Your task to perform on an android device: turn off notifications in google photos Image 0: 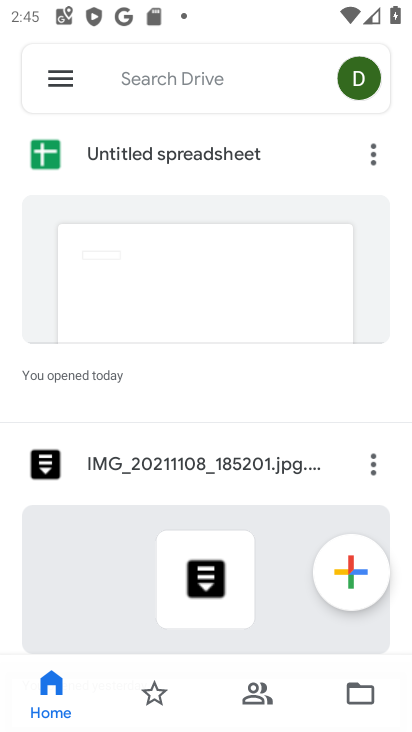
Step 0: press home button
Your task to perform on an android device: turn off notifications in google photos Image 1: 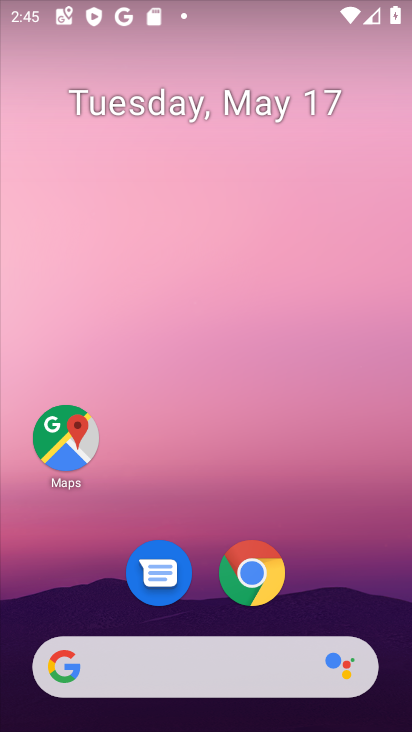
Step 1: drag from (362, 576) to (315, 142)
Your task to perform on an android device: turn off notifications in google photos Image 2: 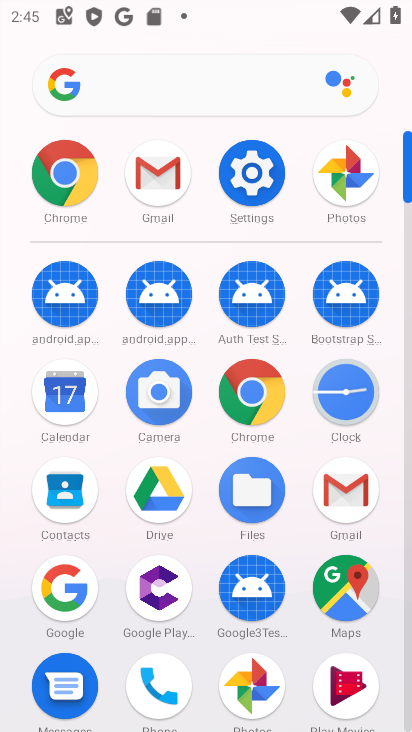
Step 2: click (260, 684)
Your task to perform on an android device: turn off notifications in google photos Image 3: 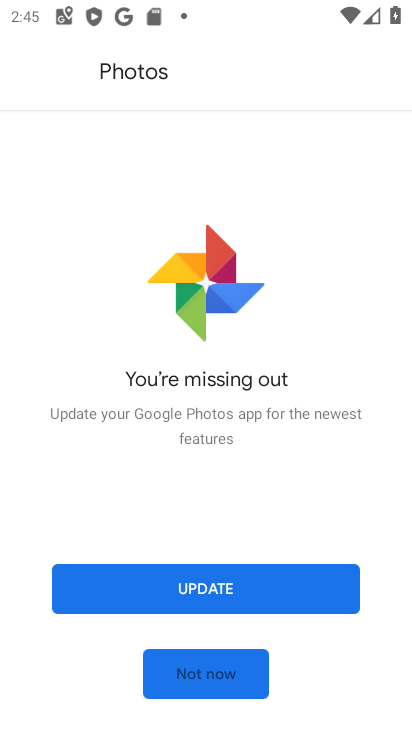
Step 3: click (266, 607)
Your task to perform on an android device: turn off notifications in google photos Image 4: 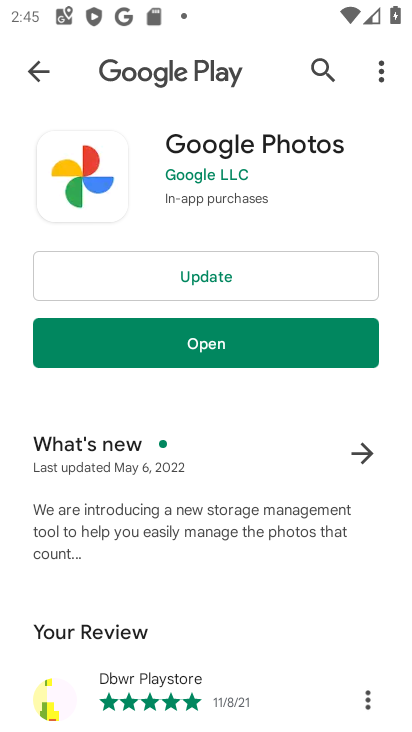
Step 4: click (259, 283)
Your task to perform on an android device: turn off notifications in google photos Image 5: 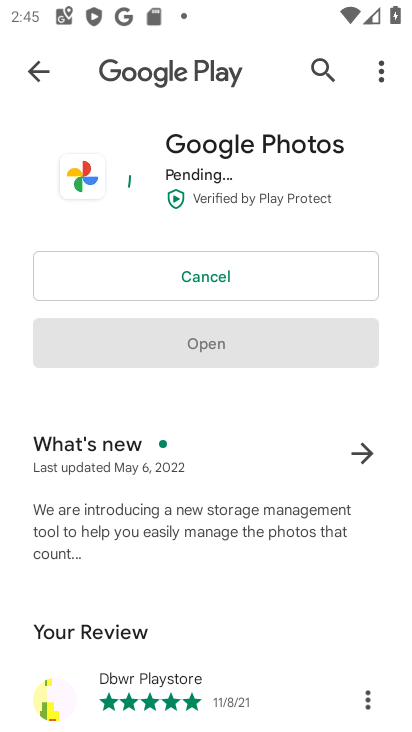
Step 5: click (30, 68)
Your task to perform on an android device: turn off notifications in google photos Image 6: 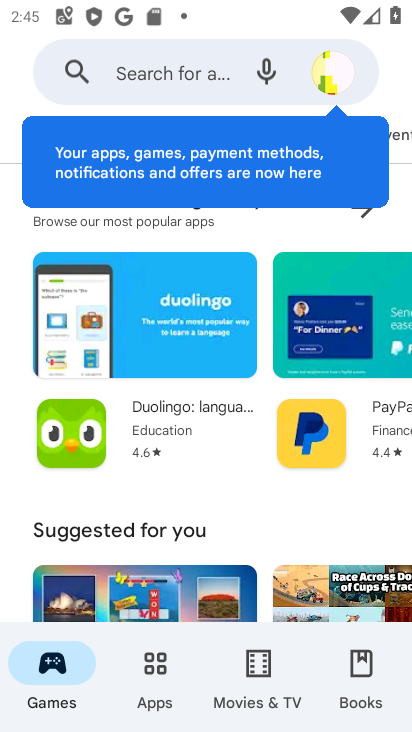
Step 6: press home button
Your task to perform on an android device: turn off notifications in google photos Image 7: 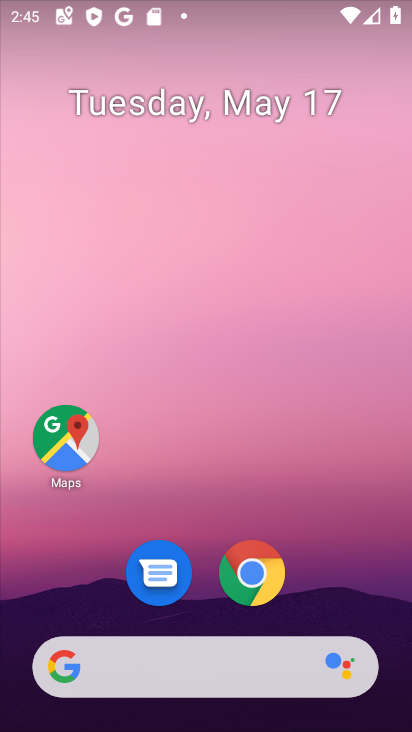
Step 7: drag from (374, 581) to (324, 174)
Your task to perform on an android device: turn off notifications in google photos Image 8: 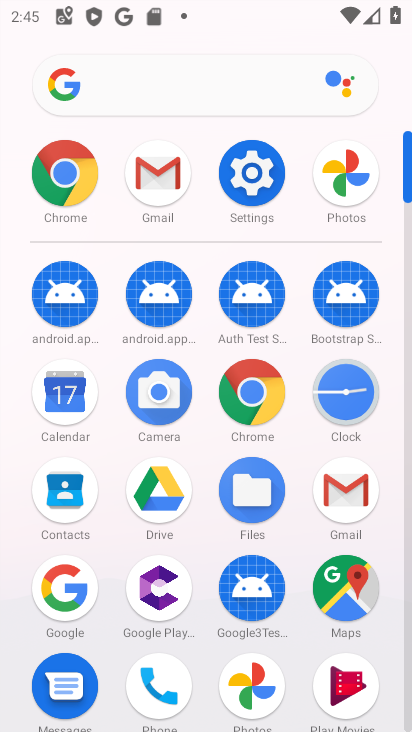
Step 8: click (256, 689)
Your task to perform on an android device: turn off notifications in google photos Image 9: 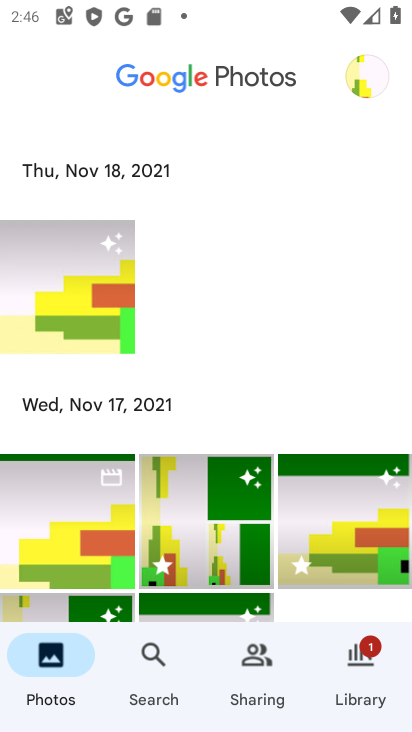
Step 9: click (367, 90)
Your task to perform on an android device: turn off notifications in google photos Image 10: 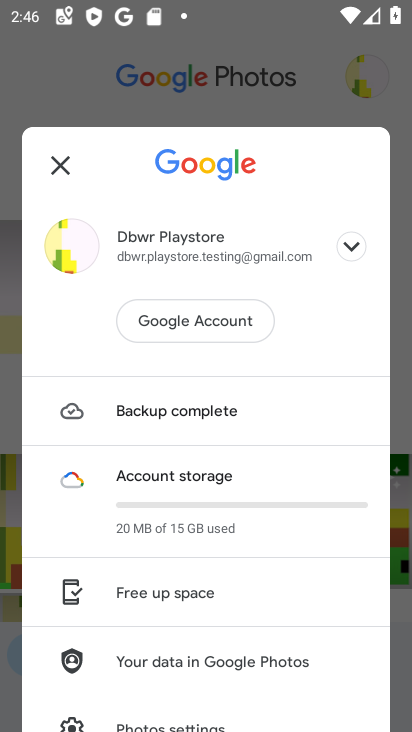
Step 10: drag from (286, 626) to (277, 247)
Your task to perform on an android device: turn off notifications in google photos Image 11: 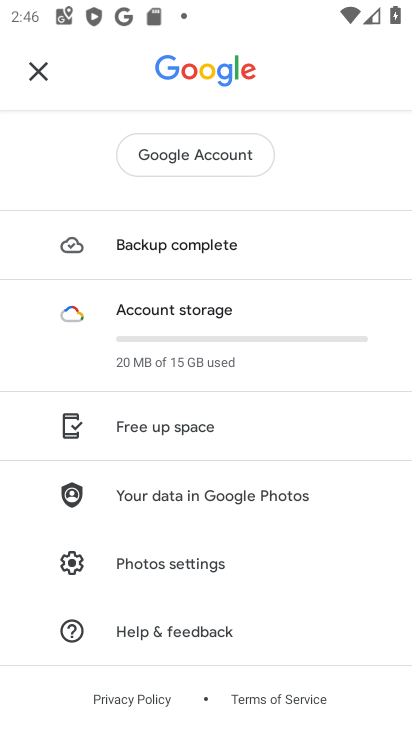
Step 11: click (203, 561)
Your task to perform on an android device: turn off notifications in google photos Image 12: 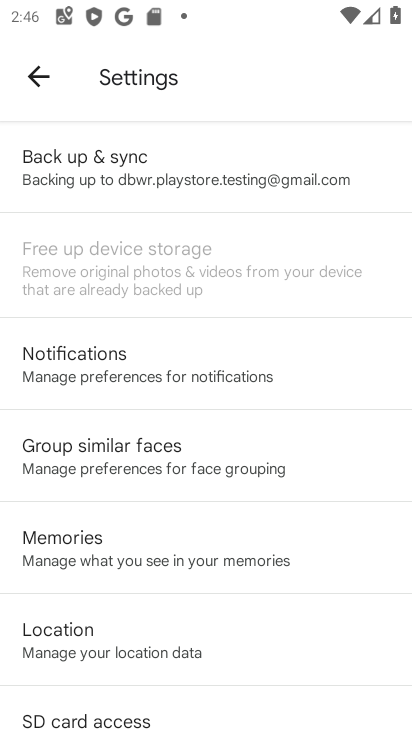
Step 12: click (233, 373)
Your task to perform on an android device: turn off notifications in google photos Image 13: 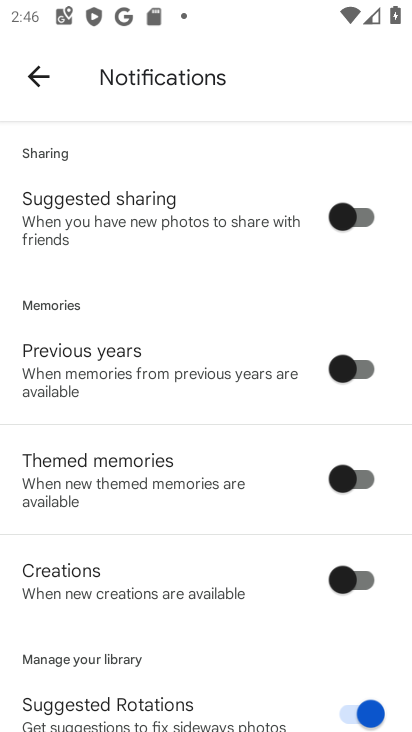
Step 13: drag from (239, 630) to (283, 228)
Your task to perform on an android device: turn off notifications in google photos Image 14: 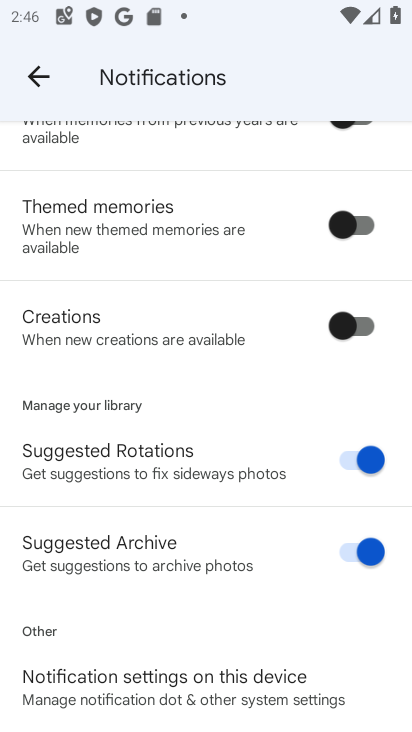
Step 14: drag from (226, 646) to (236, 377)
Your task to perform on an android device: turn off notifications in google photos Image 15: 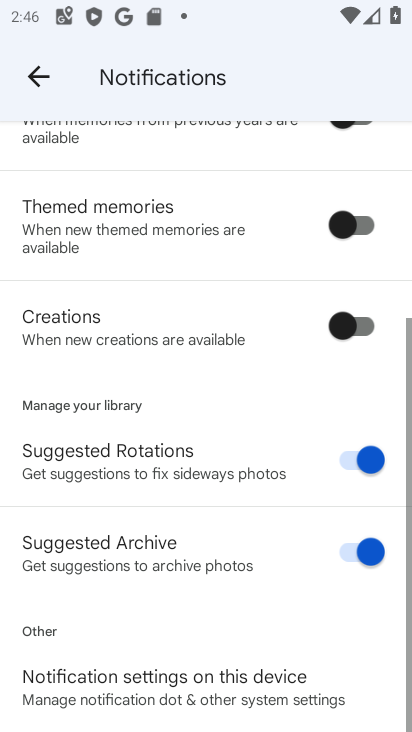
Step 15: click (218, 675)
Your task to perform on an android device: turn off notifications in google photos Image 16: 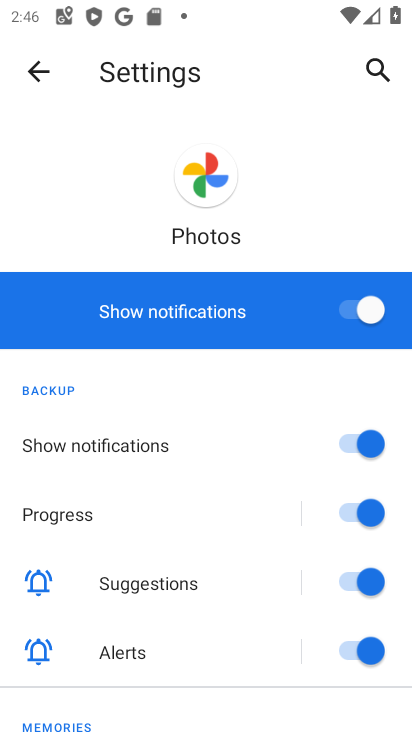
Step 16: click (349, 310)
Your task to perform on an android device: turn off notifications in google photos Image 17: 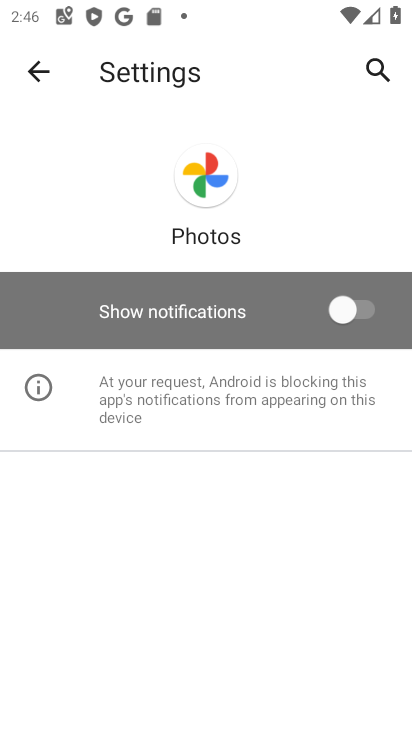
Step 17: task complete